Your task to perform on an android device: Open wifi settings Image 0: 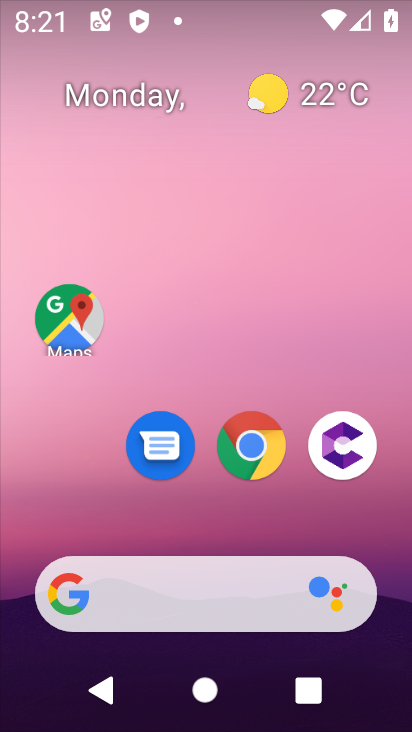
Step 0: drag from (207, 365) to (277, 39)
Your task to perform on an android device: Open wifi settings Image 1: 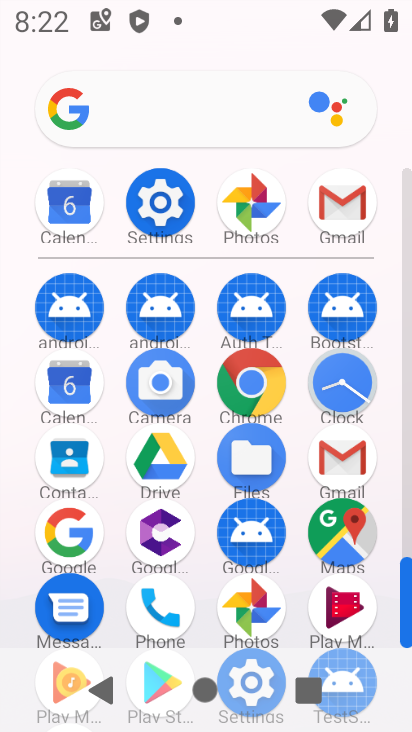
Step 1: click (156, 208)
Your task to perform on an android device: Open wifi settings Image 2: 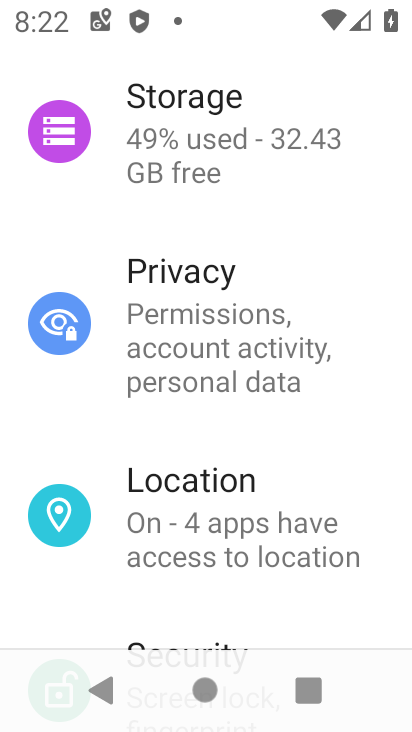
Step 2: drag from (42, 216) to (54, 700)
Your task to perform on an android device: Open wifi settings Image 3: 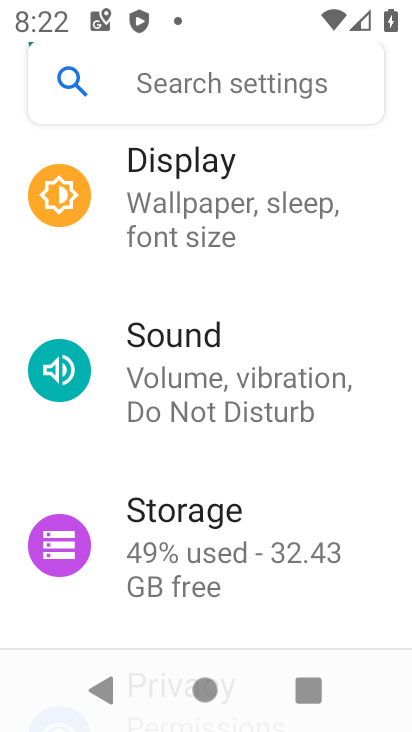
Step 3: drag from (61, 247) to (74, 725)
Your task to perform on an android device: Open wifi settings Image 4: 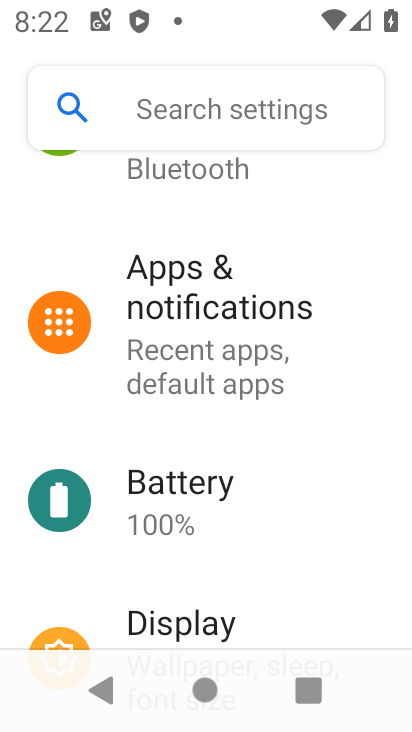
Step 4: drag from (59, 221) to (106, 680)
Your task to perform on an android device: Open wifi settings Image 5: 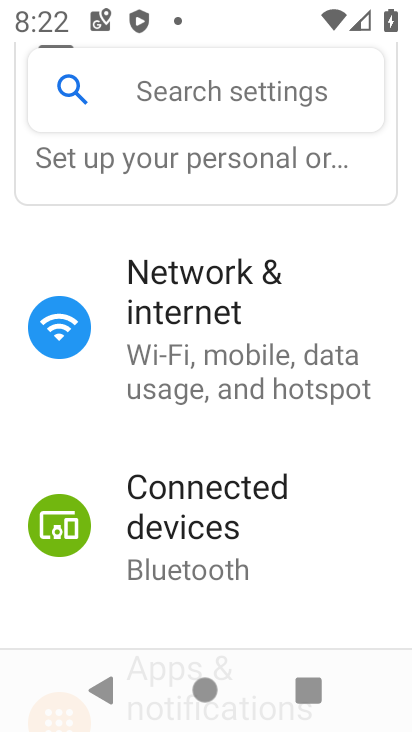
Step 5: click (191, 321)
Your task to perform on an android device: Open wifi settings Image 6: 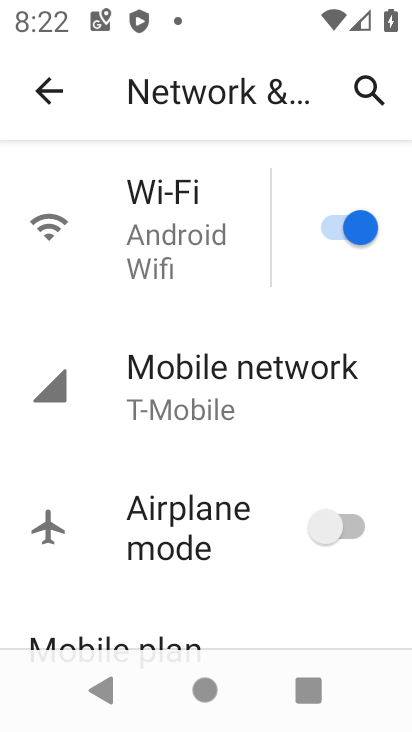
Step 6: click (179, 255)
Your task to perform on an android device: Open wifi settings Image 7: 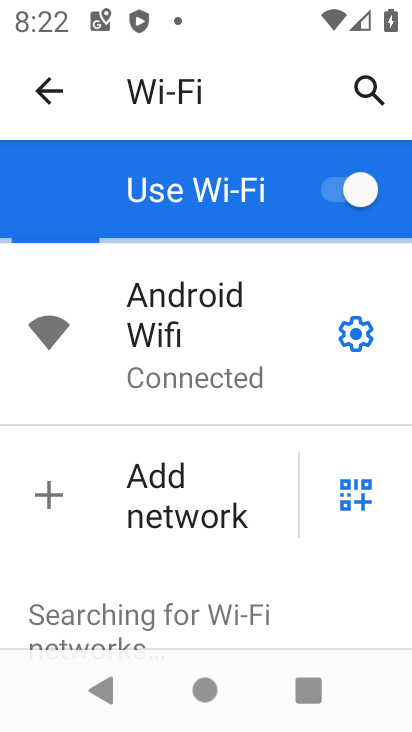
Step 7: task complete